Your task to perform on an android device: change your default location settings in chrome Image 0: 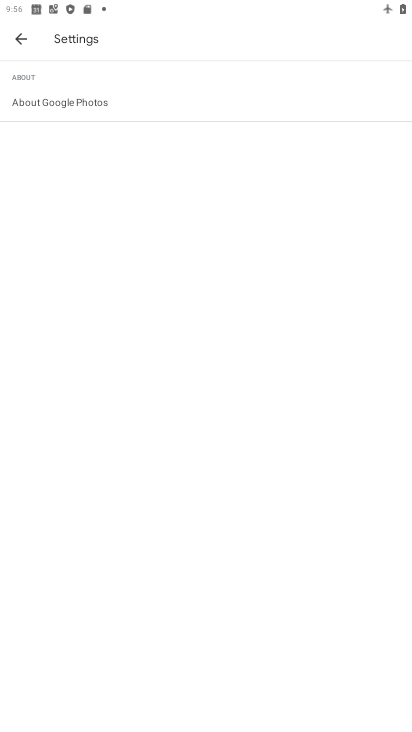
Step 0: press home button
Your task to perform on an android device: change your default location settings in chrome Image 1: 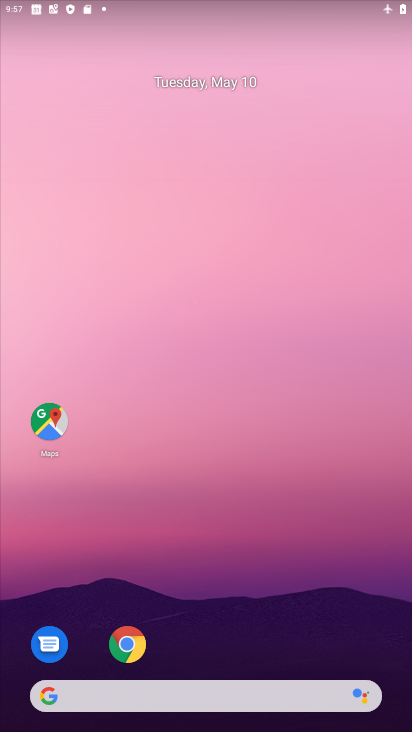
Step 1: drag from (239, 641) to (217, 200)
Your task to perform on an android device: change your default location settings in chrome Image 2: 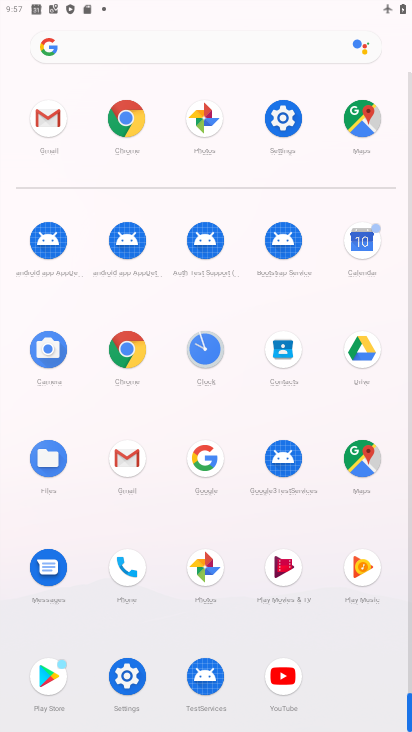
Step 2: click (138, 137)
Your task to perform on an android device: change your default location settings in chrome Image 3: 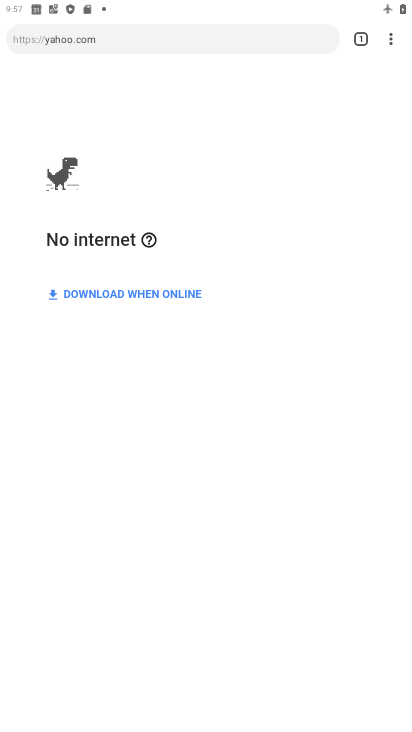
Step 3: press home button
Your task to perform on an android device: change your default location settings in chrome Image 4: 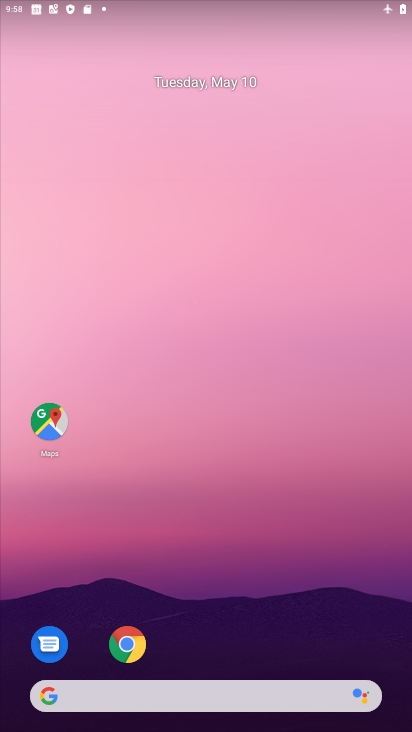
Step 4: click (124, 655)
Your task to perform on an android device: change your default location settings in chrome Image 5: 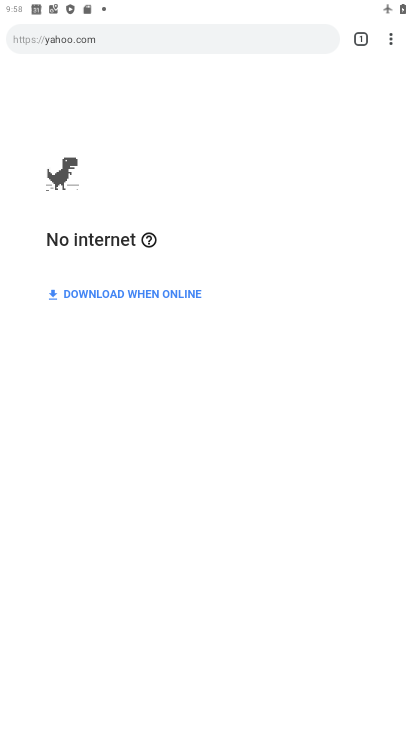
Step 5: click (393, 45)
Your task to perform on an android device: change your default location settings in chrome Image 6: 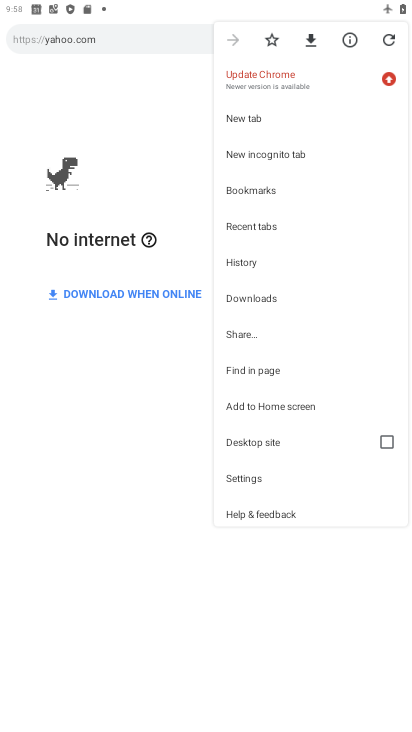
Step 6: click (279, 476)
Your task to perform on an android device: change your default location settings in chrome Image 7: 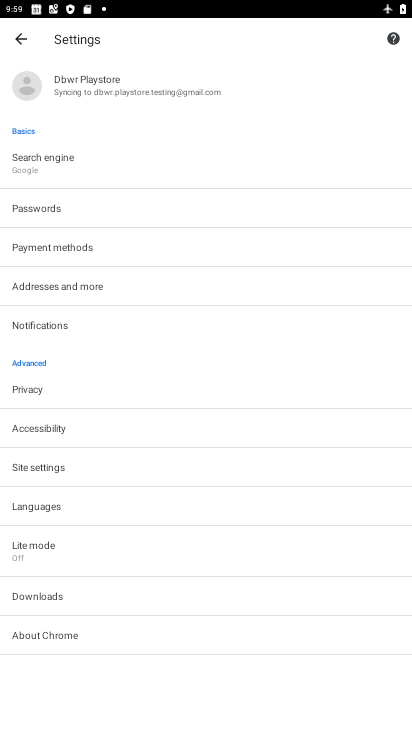
Step 7: click (53, 463)
Your task to perform on an android device: change your default location settings in chrome Image 8: 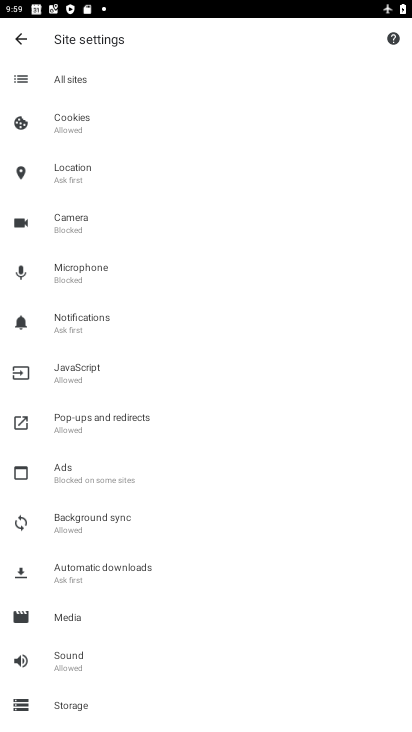
Step 8: click (114, 179)
Your task to perform on an android device: change your default location settings in chrome Image 9: 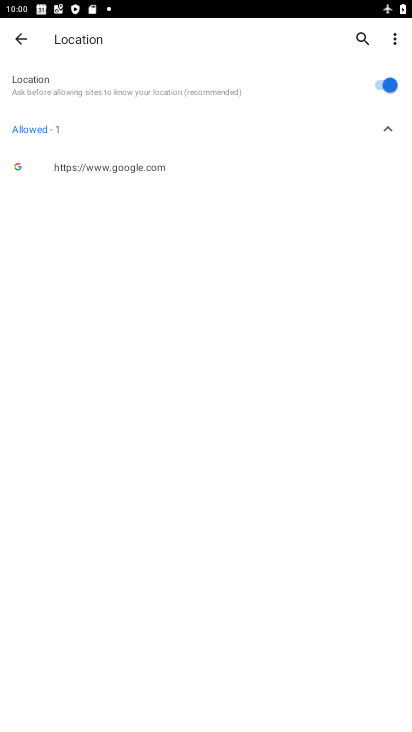
Step 9: click (382, 81)
Your task to perform on an android device: change your default location settings in chrome Image 10: 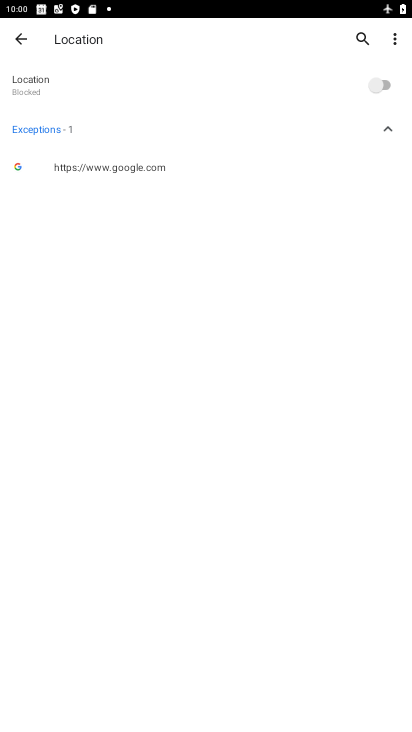
Step 10: task complete